Your task to perform on an android device: stop showing notifications on the lock screen Image 0: 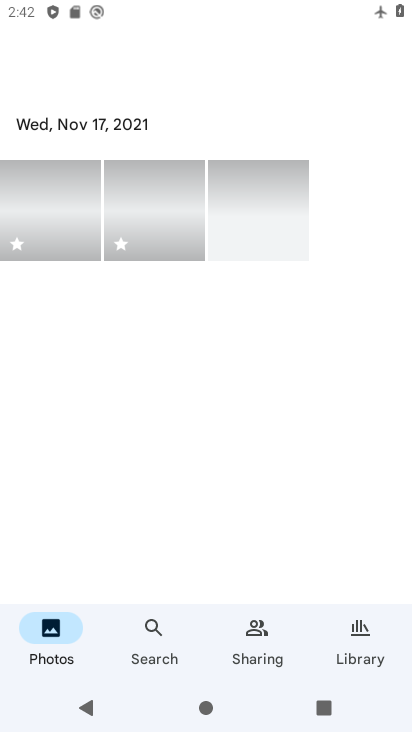
Step 0: drag from (257, 509) to (240, 124)
Your task to perform on an android device: stop showing notifications on the lock screen Image 1: 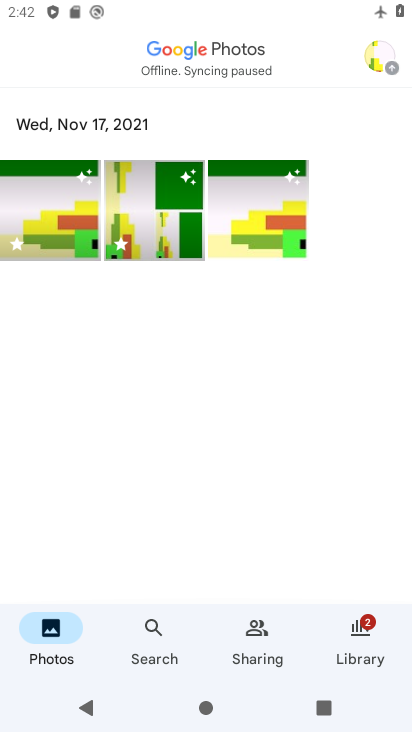
Step 1: press back button
Your task to perform on an android device: stop showing notifications on the lock screen Image 2: 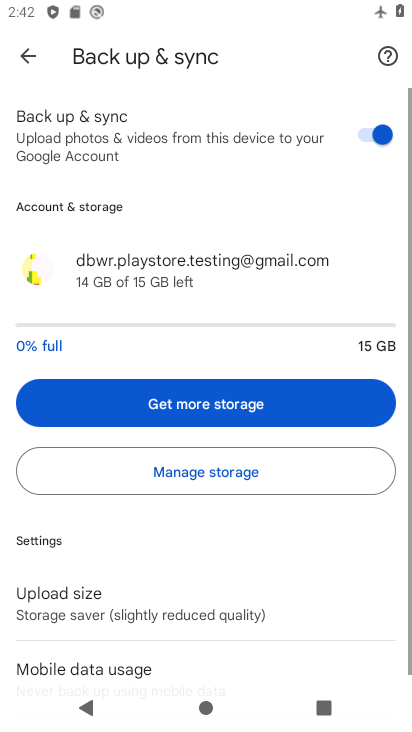
Step 2: press back button
Your task to perform on an android device: stop showing notifications on the lock screen Image 3: 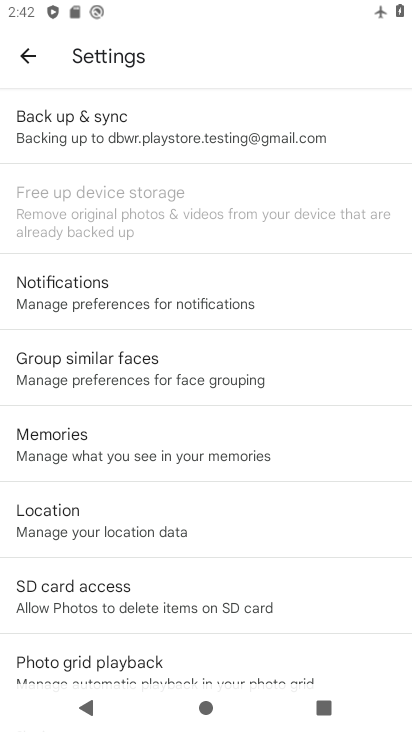
Step 3: press back button
Your task to perform on an android device: stop showing notifications on the lock screen Image 4: 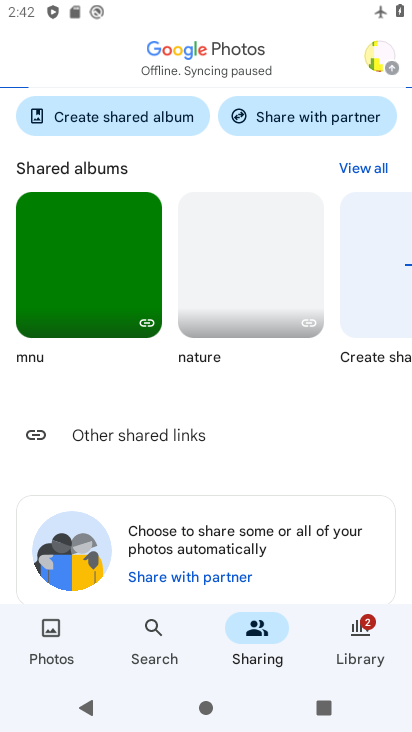
Step 4: press back button
Your task to perform on an android device: stop showing notifications on the lock screen Image 5: 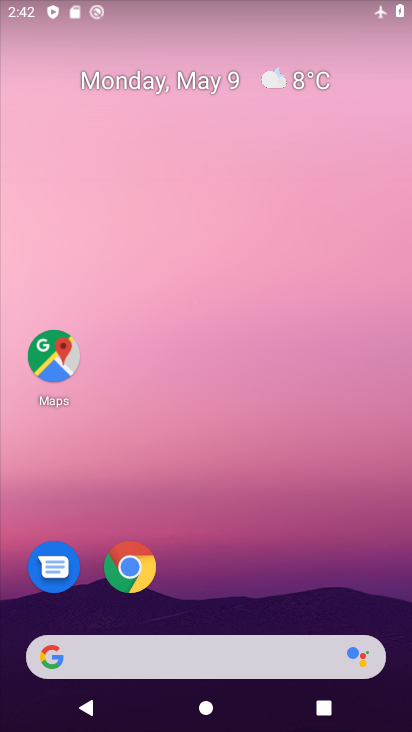
Step 5: drag from (321, 525) to (241, 0)
Your task to perform on an android device: stop showing notifications on the lock screen Image 6: 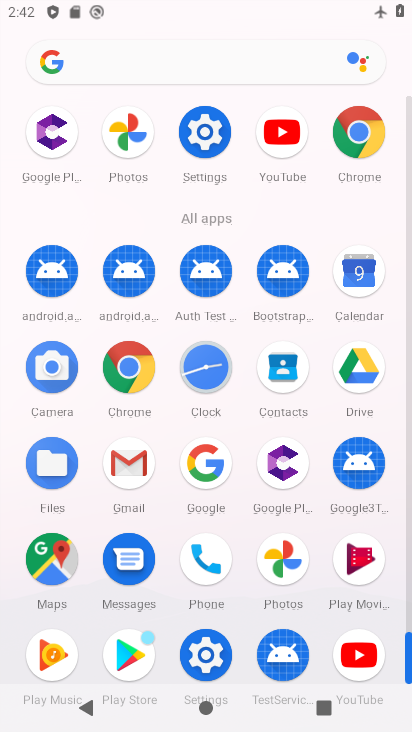
Step 6: drag from (12, 501) to (22, 306)
Your task to perform on an android device: stop showing notifications on the lock screen Image 7: 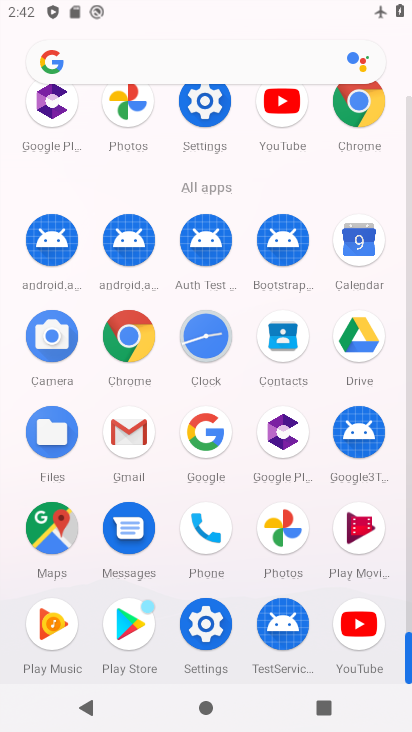
Step 7: click (205, 621)
Your task to perform on an android device: stop showing notifications on the lock screen Image 8: 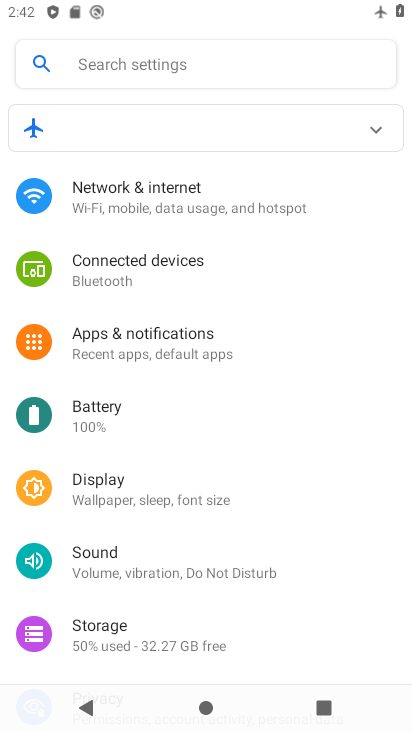
Step 8: drag from (292, 576) to (326, 476)
Your task to perform on an android device: stop showing notifications on the lock screen Image 9: 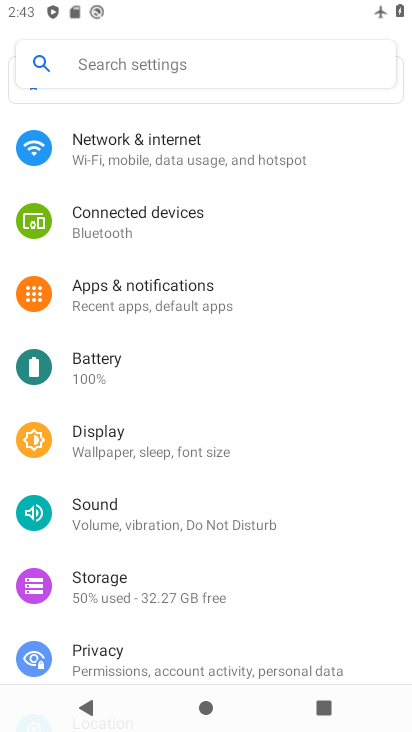
Step 9: click (176, 290)
Your task to perform on an android device: stop showing notifications on the lock screen Image 10: 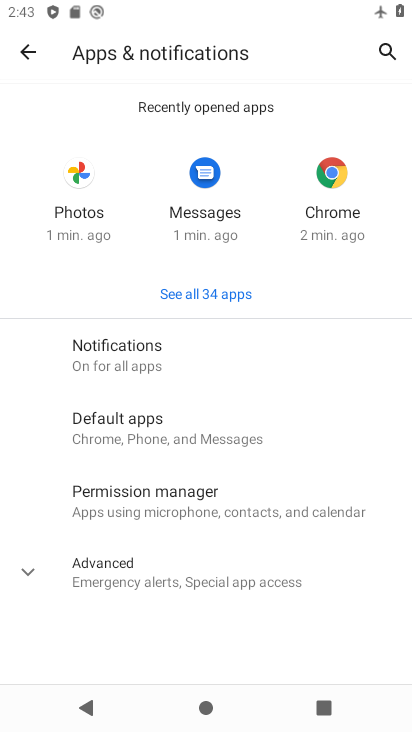
Step 10: click (35, 552)
Your task to perform on an android device: stop showing notifications on the lock screen Image 11: 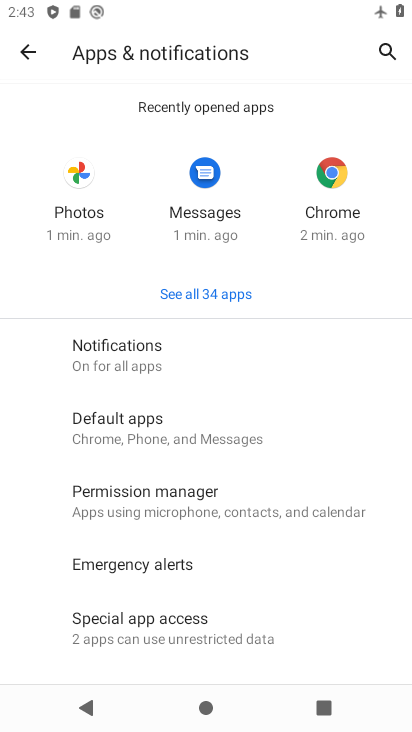
Step 11: click (211, 351)
Your task to perform on an android device: stop showing notifications on the lock screen Image 12: 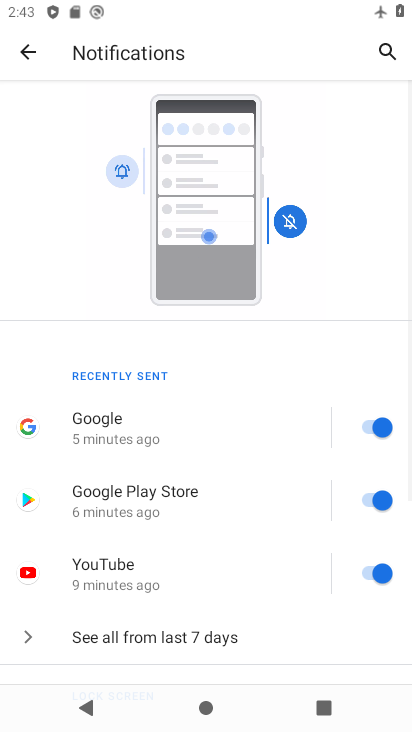
Step 12: drag from (249, 513) to (282, 142)
Your task to perform on an android device: stop showing notifications on the lock screen Image 13: 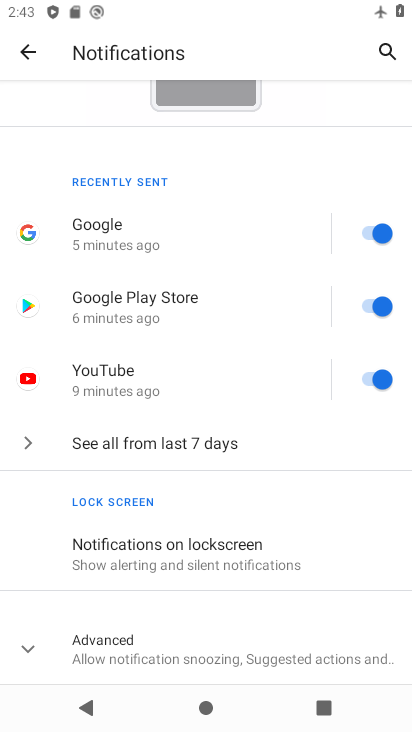
Step 13: click (31, 653)
Your task to perform on an android device: stop showing notifications on the lock screen Image 14: 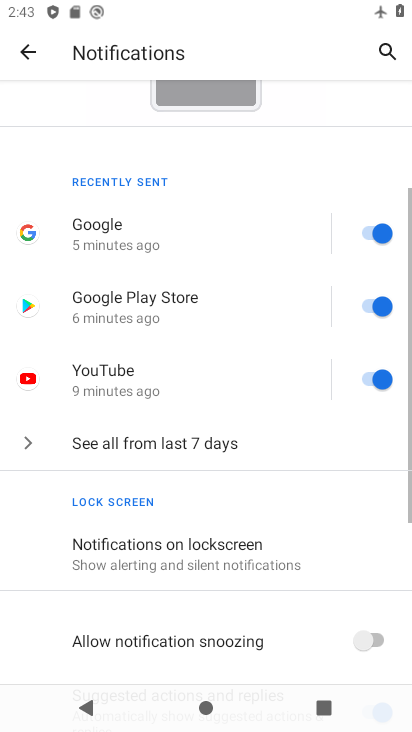
Step 14: drag from (215, 621) to (246, 183)
Your task to perform on an android device: stop showing notifications on the lock screen Image 15: 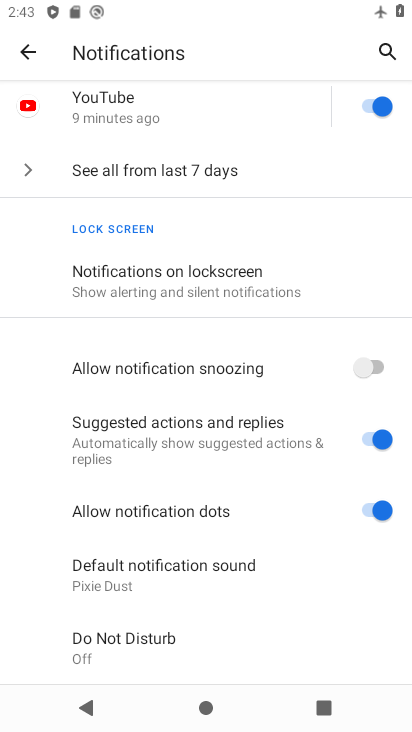
Step 15: drag from (244, 207) to (222, 559)
Your task to perform on an android device: stop showing notifications on the lock screen Image 16: 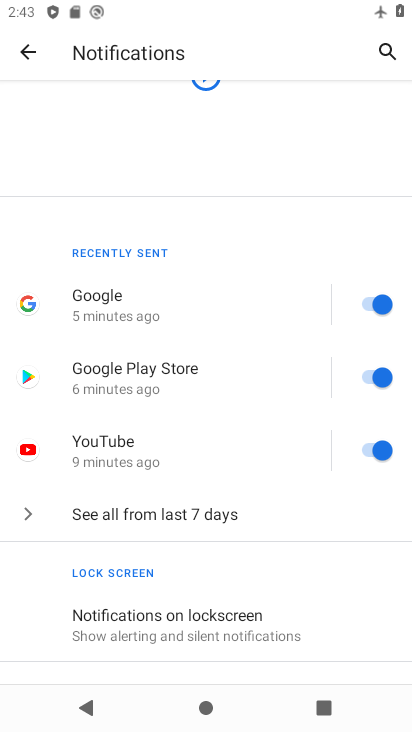
Step 16: drag from (207, 585) to (239, 356)
Your task to perform on an android device: stop showing notifications on the lock screen Image 17: 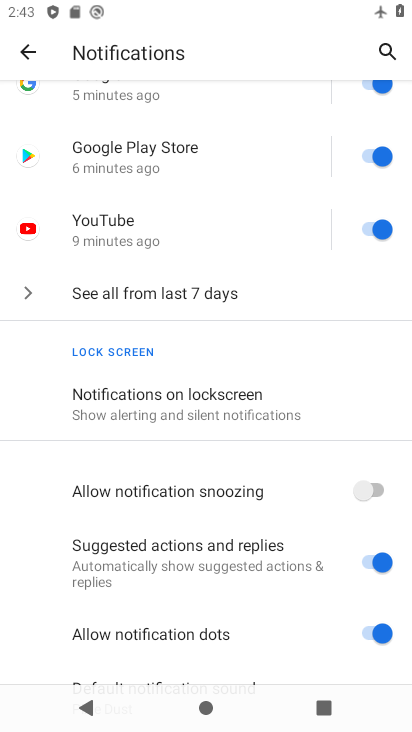
Step 17: click (224, 404)
Your task to perform on an android device: stop showing notifications on the lock screen Image 18: 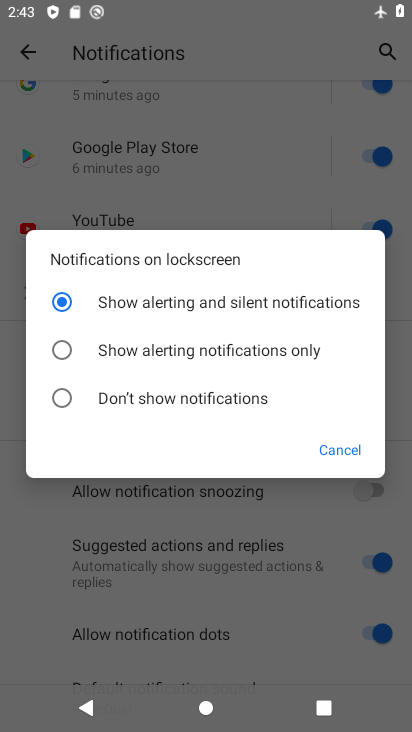
Step 18: click (206, 398)
Your task to perform on an android device: stop showing notifications on the lock screen Image 19: 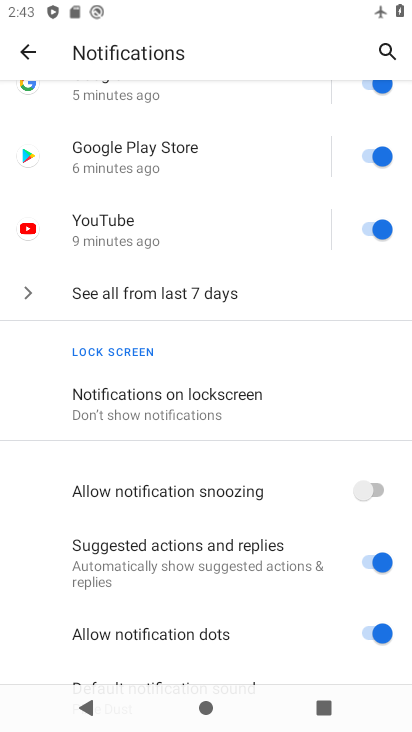
Step 19: task complete